Your task to perform on an android device: Search for Italian restaurants on Maps Image 0: 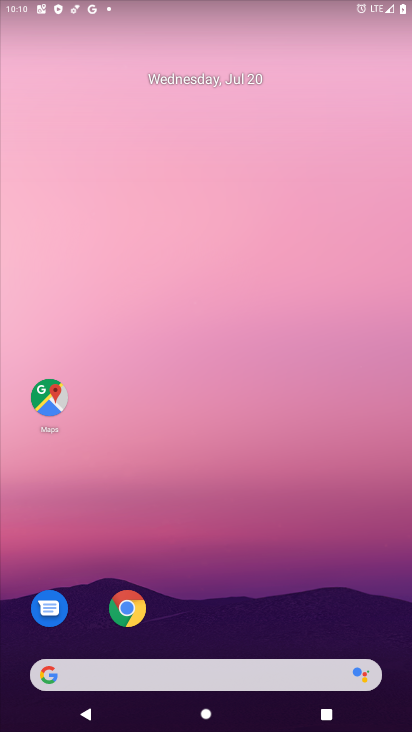
Step 0: press home button
Your task to perform on an android device: Search for Italian restaurants on Maps Image 1: 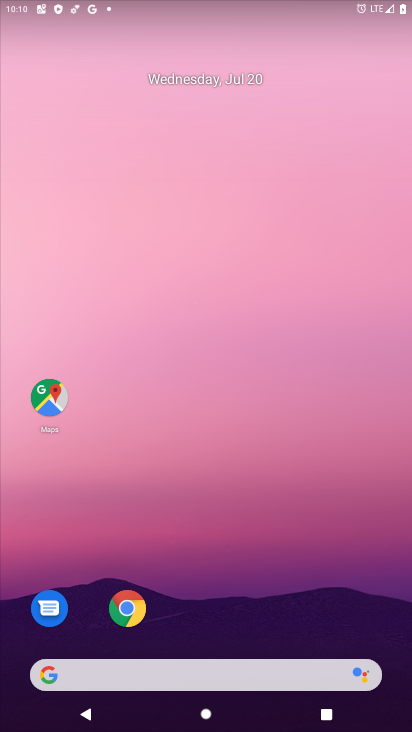
Step 1: click (54, 392)
Your task to perform on an android device: Search for Italian restaurants on Maps Image 2: 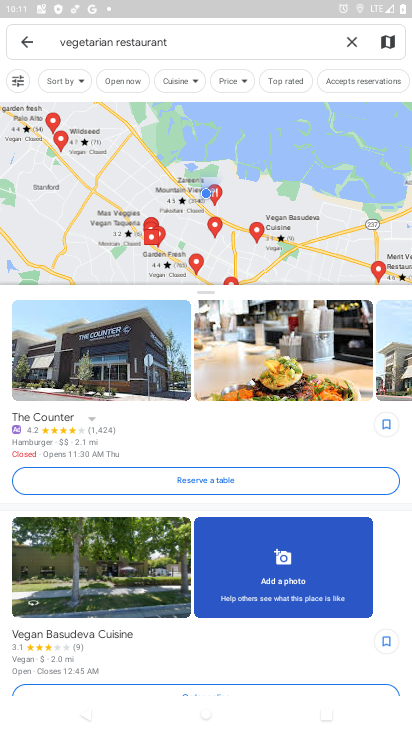
Step 2: click (348, 47)
Your task to perform on an android device: Search for Italian restaurants on Maps Image 3: 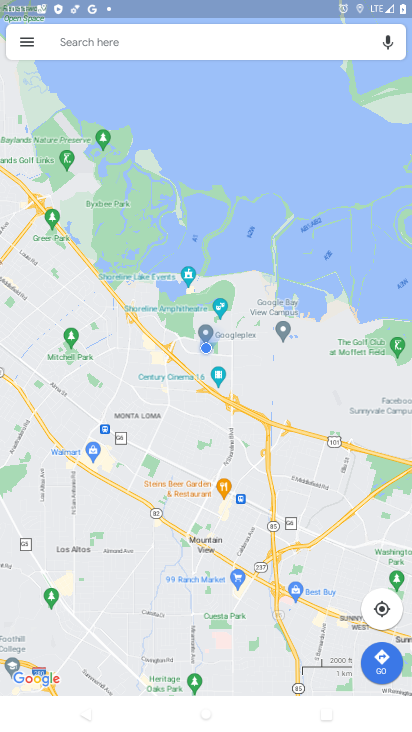
Step 3: click (115, 35)
Your task to perform on an android device: Search for Italian restaurants on Maps Image 4: 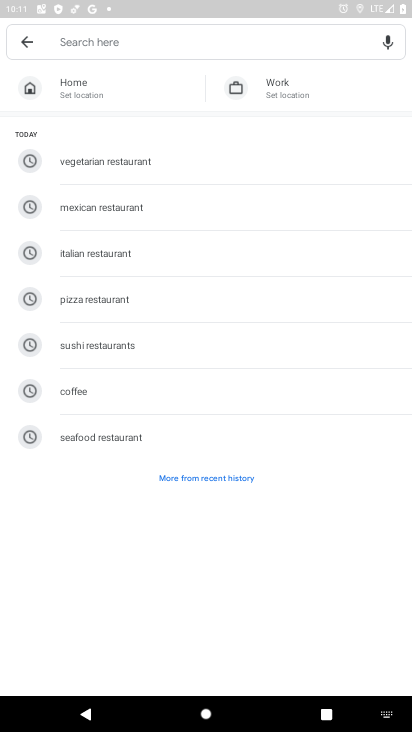
Step 4: click (119, 254)
Your task to perform on an android device: Search for Italian restaurants on Maps Image 5: 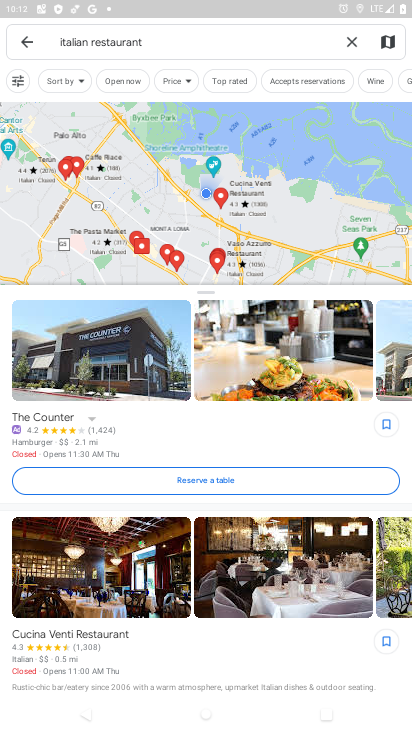
Step 5: task complete